Your task to perform on an android device: Turn on the flashlight Image 0: 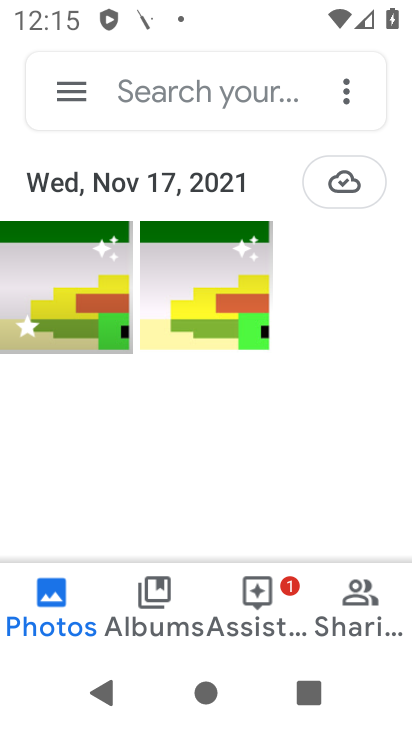
Step 0: press home button
Your task to perform on an android device: Turn on the flashlight Image 1: 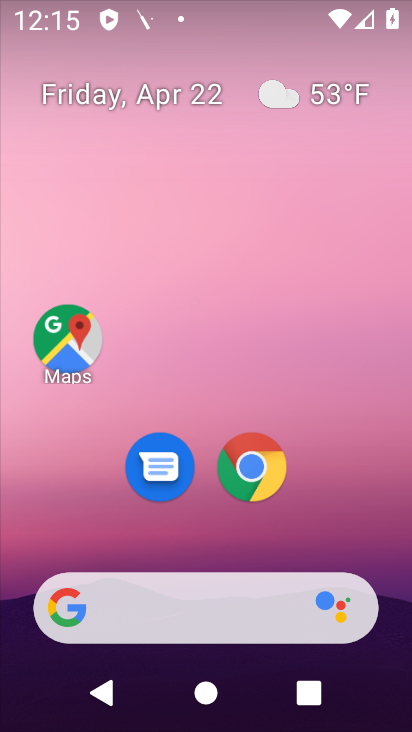
Step 1: drag from (220, 9) to (327, 498)
Your task to perform on an android device: Turn on the flashlight Image 2: 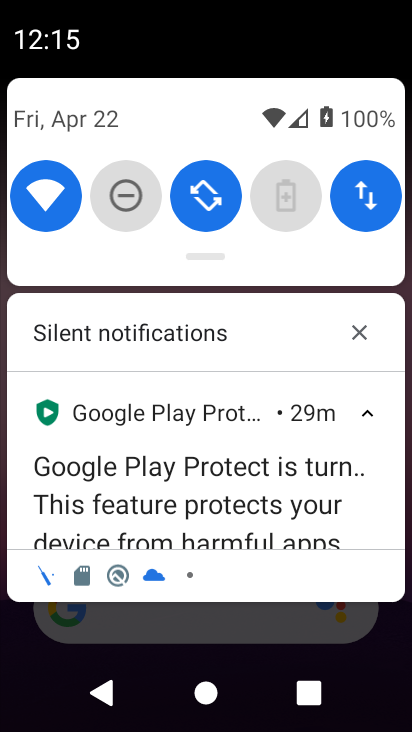
Step 2: drag from (214, 253) to (221, 536)
Your task to perform on an android device: Turn on the flashlight Image 3: 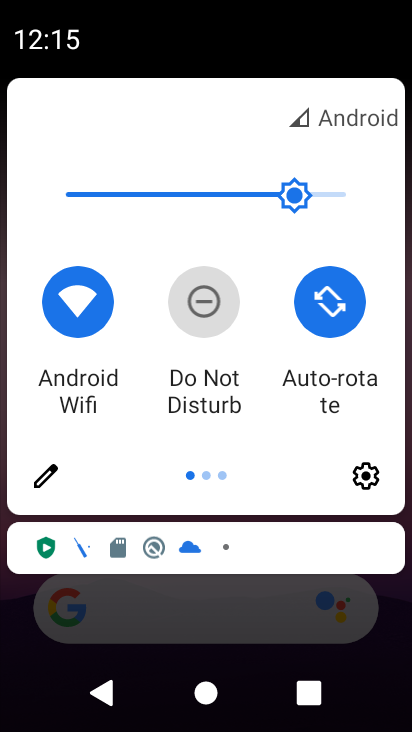
Step 3: click (49, 470)
Your task to perform on an android device: Turn on the flashlight Image 4: 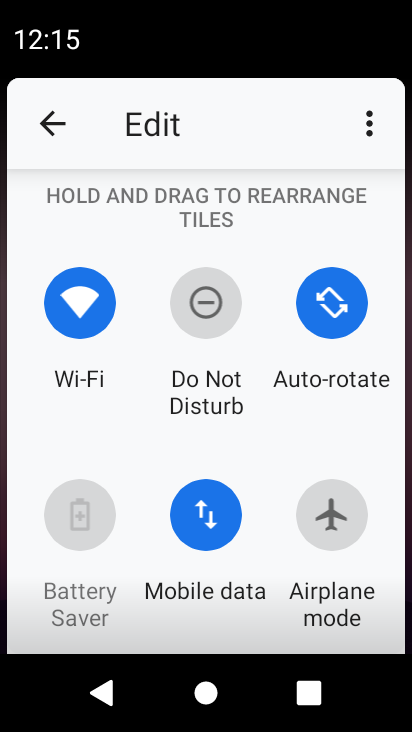
Step 4: task complete